Your task to perform on an android device: Open Youtube and go to the subscriptions tab Image 0: 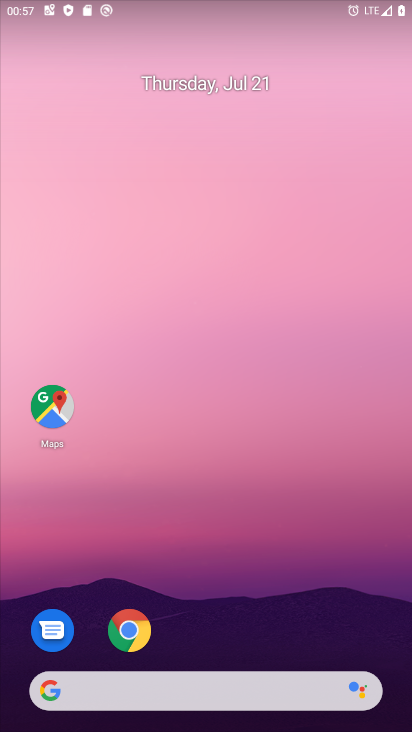
Step 0: drag from (168, 623) to (248, 122)
Your task to perform on an android device: Open Youtube and go to the subscriptions tab Image 1: 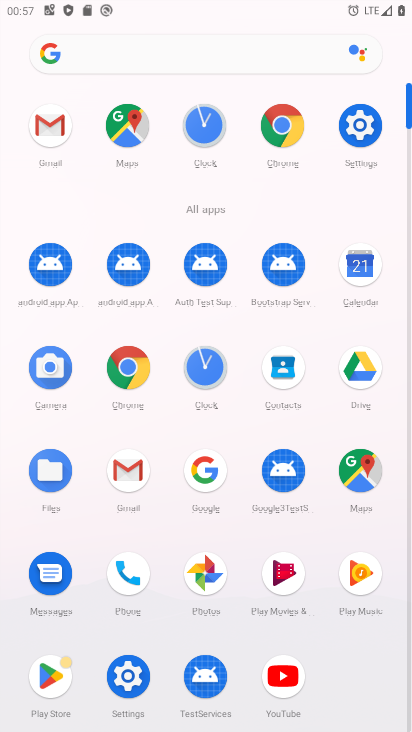
Step 1: click (287, 664)
Your task to perform on an android device: Open Youtube and go to the subscriptions tab Image 2: 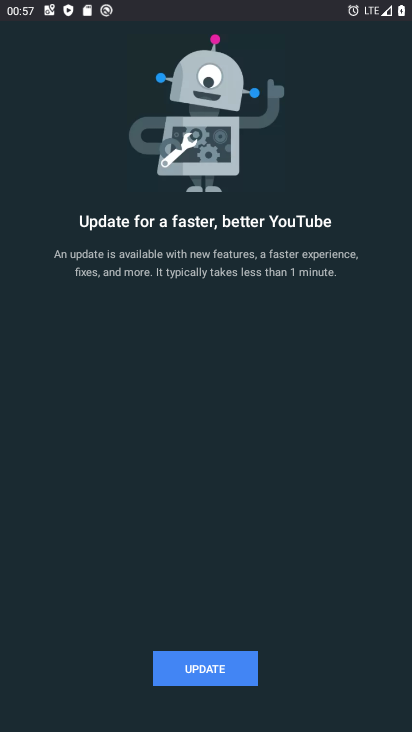
Step 2: click (256, 659)
Your task to perform on an android device: Open Youtube and go to the subscriptions tab Image 3: 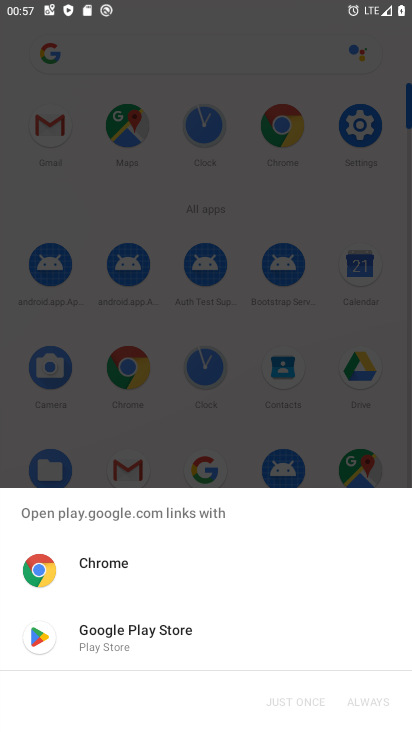
Step 3: click (252, 658)
Your task to perform on an android device: Open Youtube and go to the subscriptions tab Image 4: 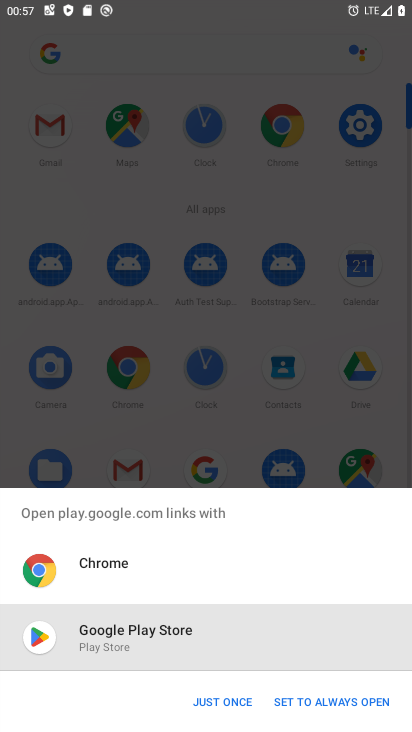
Step 4: click (207, 709)
Your task to perform on an android device: Open Youtube and go to the subscriptions tab Image 5: 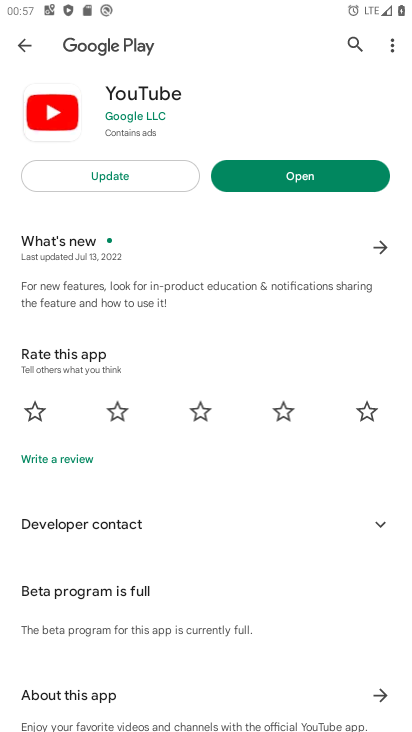
Step 5: click (130, 171)
Your task to perform on an android device: Open Youtube and go to the subscriptions tab Image 6: 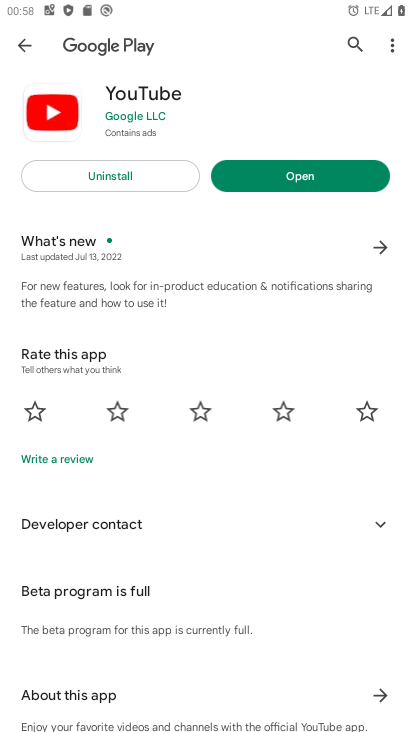
Step 6: click (341, 174)
Your task to perform on an android device: Open Youtube and go to the subscriptions tab Image 7: 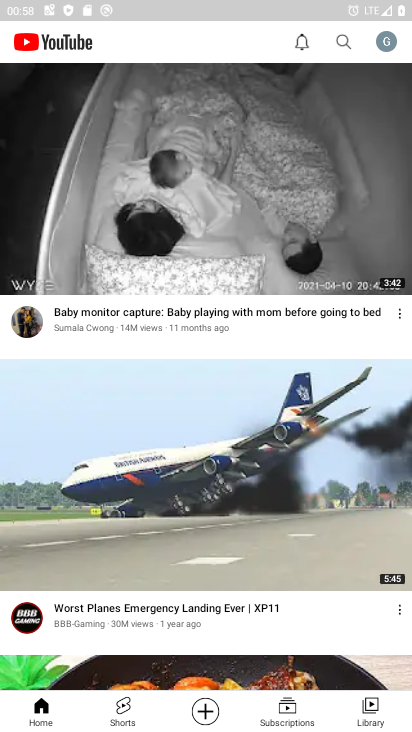
Step 7: click (277, 698)
Your task to perform on an android device: Open Youtube and go to the subscriptions tab Image 8: 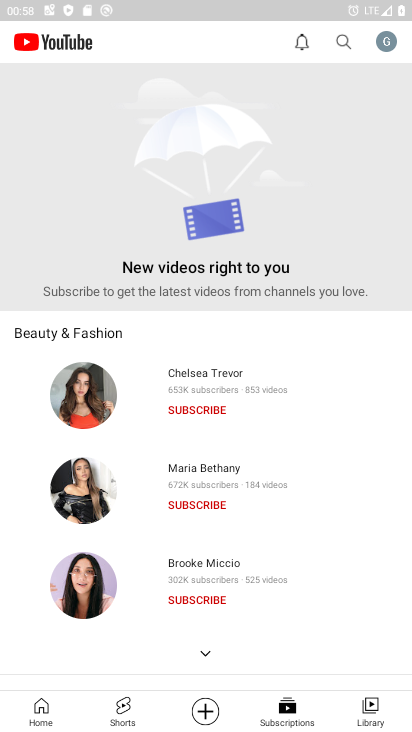
Step 8: task complete